Your task to perform on an android device: turn pop-ups off in chrome Image 0: 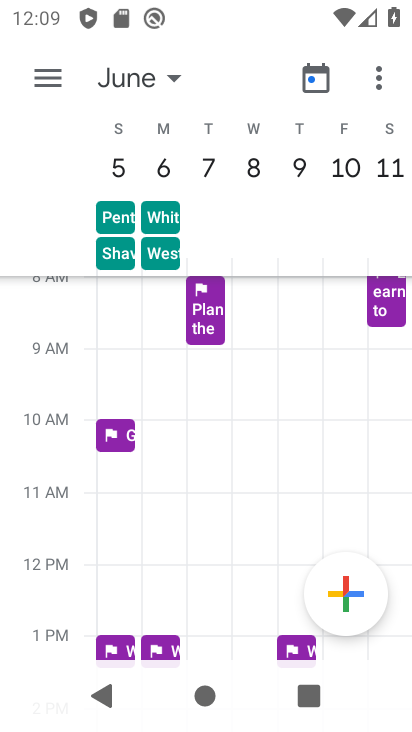
Step 0: press home button
Your task to perform on an android device: turn pop-ups off in chrome Image 1: 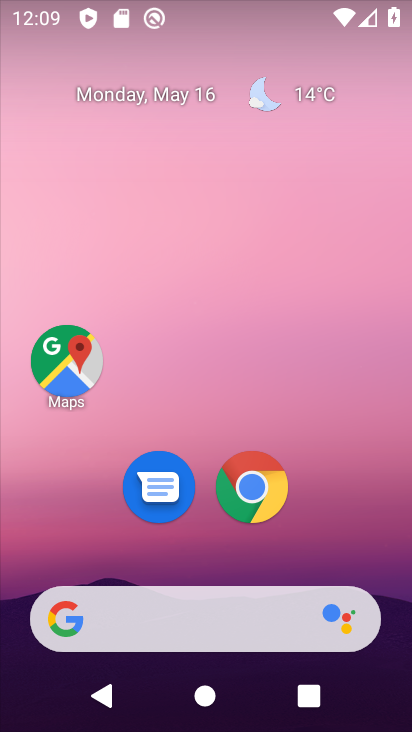
Step 1: click (258, 478)
Your task to perform on an android device: turn pop-ups off in chrome Image 2: 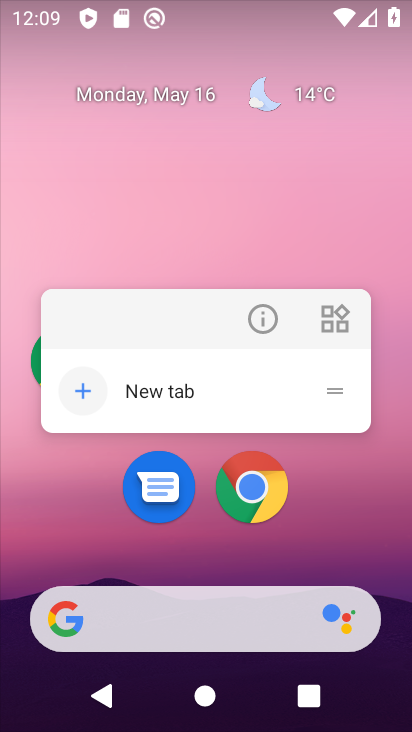
Step 2: click (259, 490)
Your task to perform on an android device: turn pop-ups off in chrome Image 3: 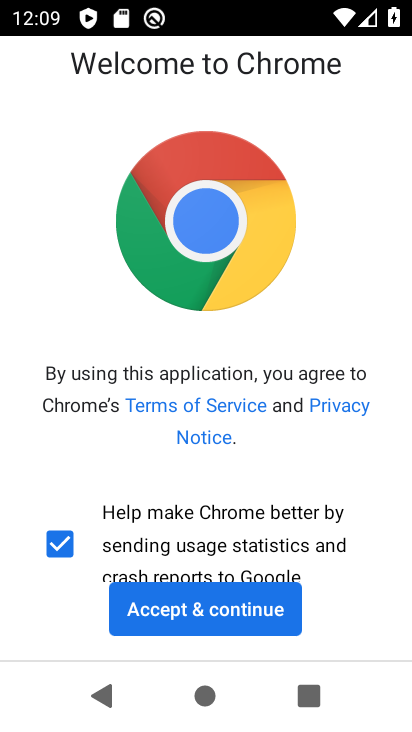
Step 3: click (191, 594)
Your task to perform on an android device: turn pop-ups off in chrome Image 4: 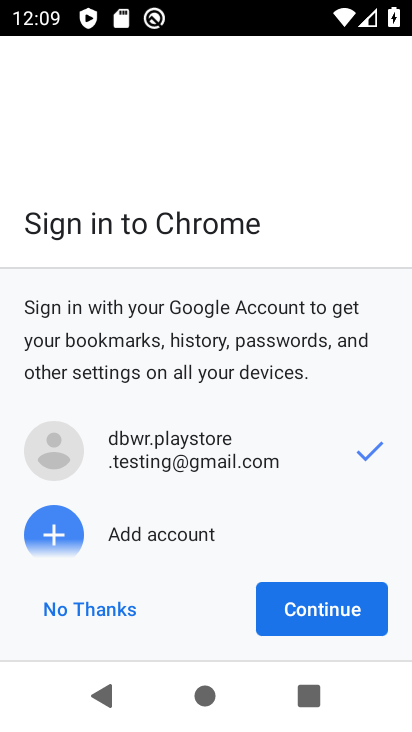
Step 4: click (288, 603)
Your task to perform on an android device: turn pop-ups off in chrome Image 5: 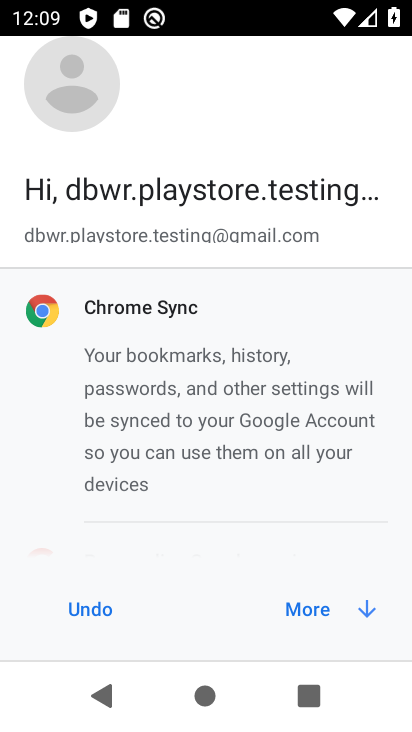
Step 5: click (288, 603)
Your task to perform on an android device: turn pop-ups off in chrome Image 6: 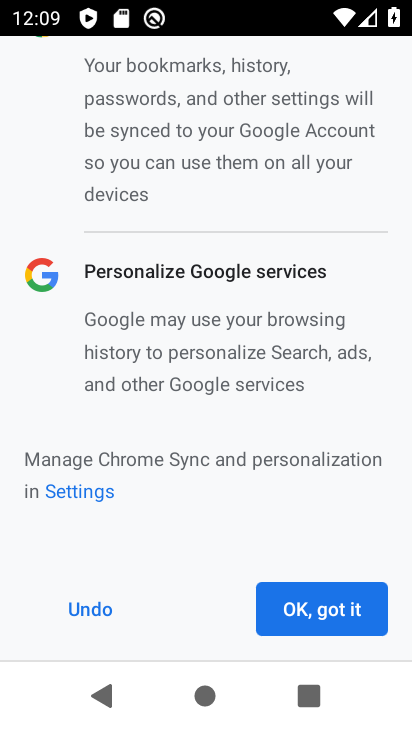
Step 6: click (300, 613)
Your task to perform on an android device: turn pop-ups off in chrome Image 7: 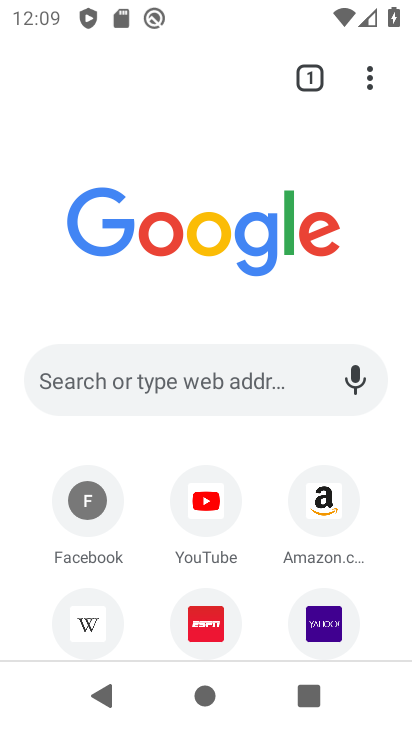
Step 7: drag from (368, 80) to (236, 563)
Your task to perform on an android device: turn pop-ups off in chrome Image 8: 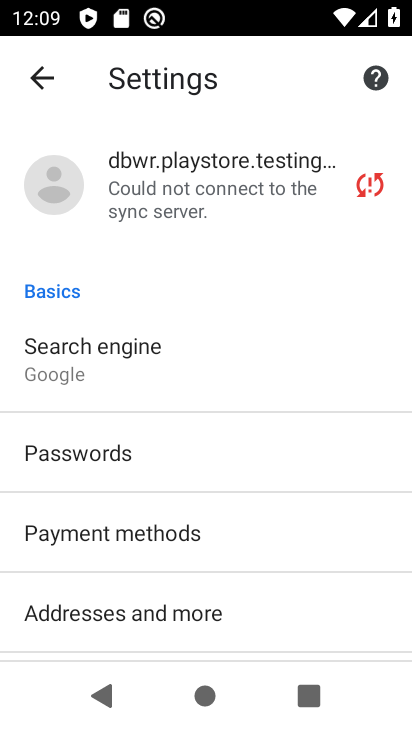
Step 8: drag from (175, 594) to (359, 191)
Your task to perform on an android device: turn pop-ups off in chrome Image 9: 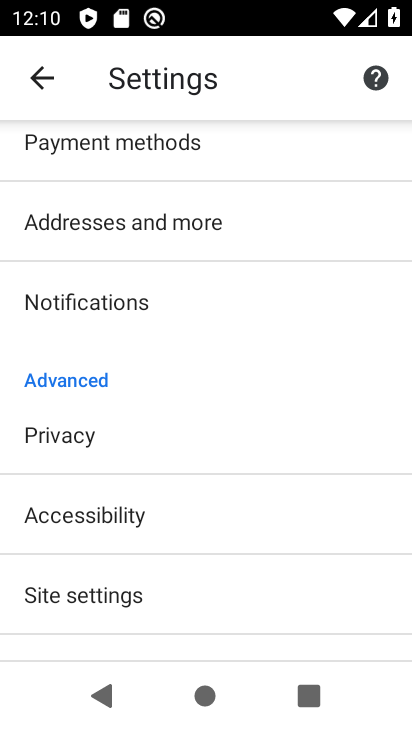
Step 9: click (123, 594)
Your task to perform on an android device: turn pop-ups off in chrome Image 10: 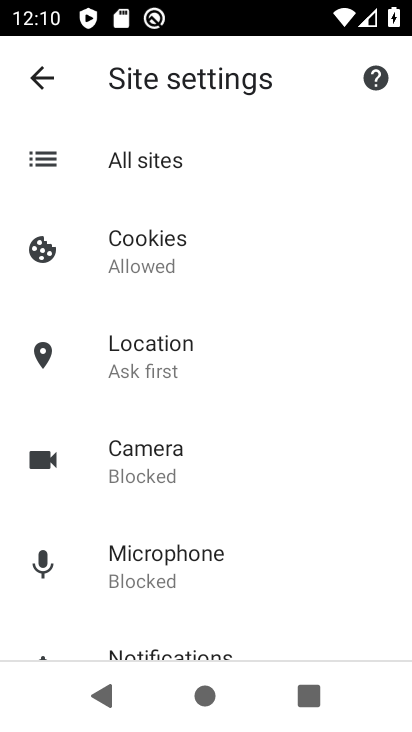
Step 10: drag from (243, 547) to (351, 134)
Your task to perform on an android device: turn pop-ups off in chrome Image 11: 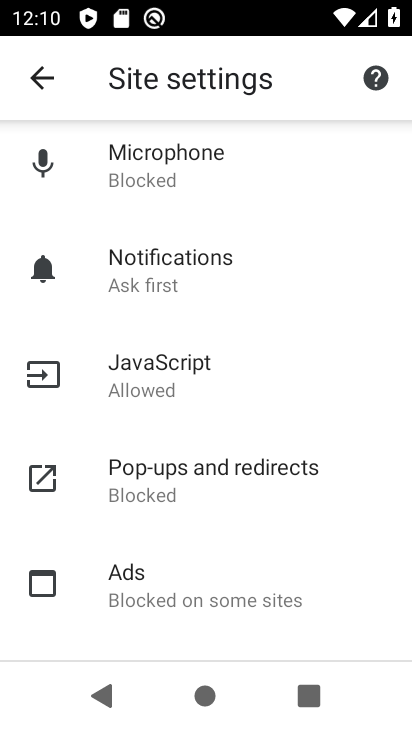
Step 11: click (190, 463)
Your task to perform on an android device: turn pop-ups off in chrome Image 12: 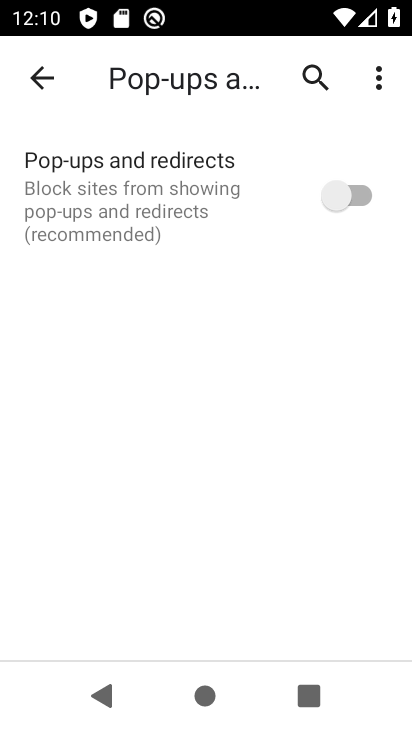
Step 12: task complete